Your task to perform on an android device: Open CNN.com Image 0: 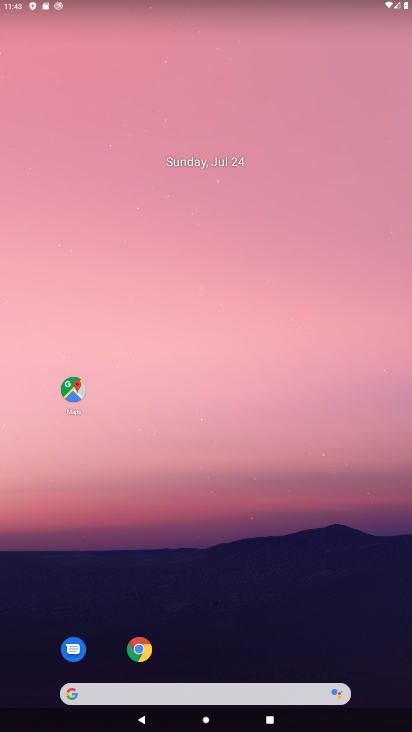
Step 0: drag from (285, 663) to (292, 277)
Your task to perform on an android device: Open CNN.com Image 1: 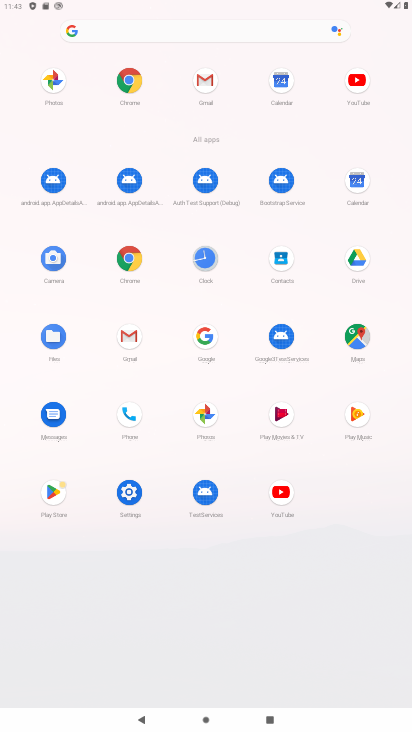
Step 1: click (140, 80)
Your task to perform on an android device: Open CNN.com Image 2: 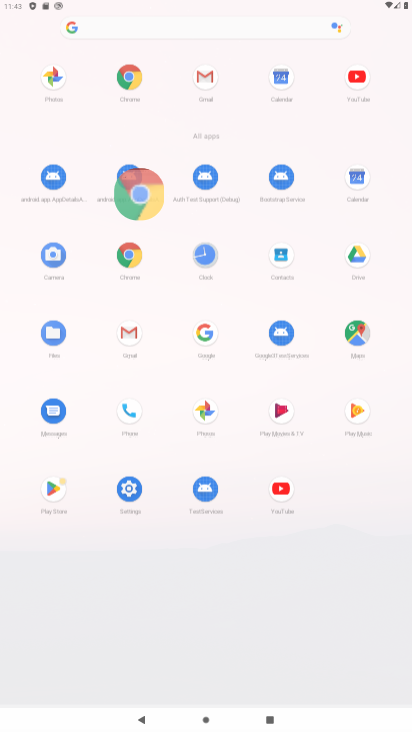
Step 2: click (127, 90)
Your task to perform on an android device: Open CNN.com Image 3: 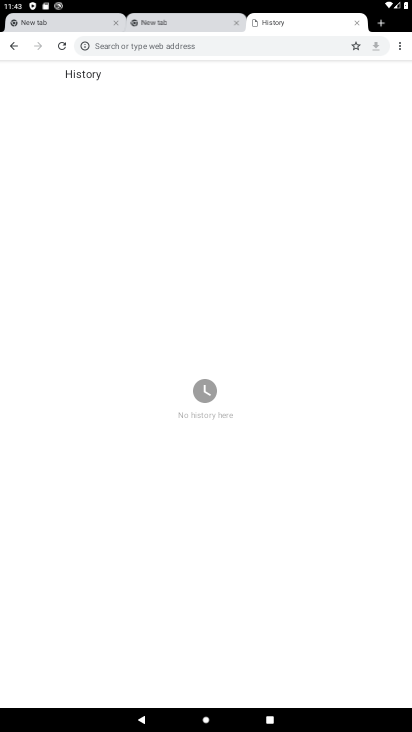
Step 3: click (222, 384)
Your task to perform on an android device: Open CNN.com Image 4: 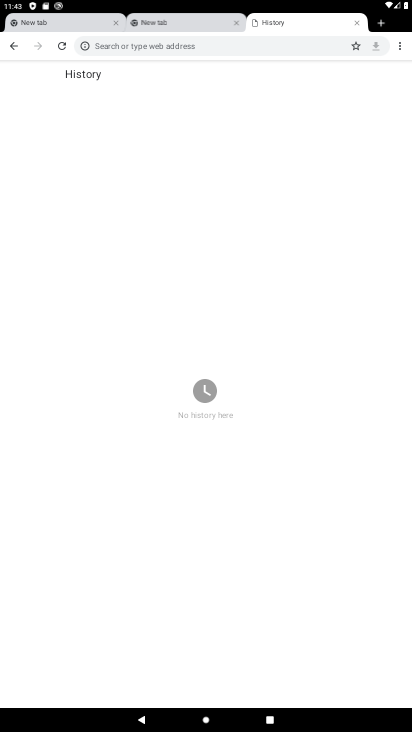
Step 4: press back button
Your task to perform on an android device: Open CNN.com Image 5: 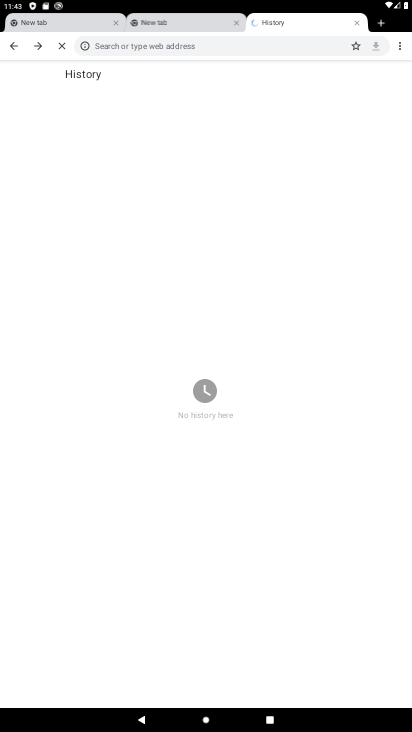
Step 5: press back button
Your task to perform on an android device: Open CNN.com Image 6: 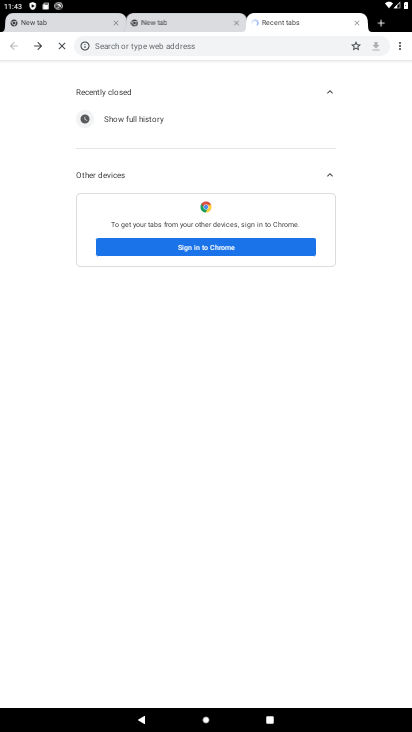
Step 6: press back button
Your task to perform on an android device: Open CNN.com Image 7: 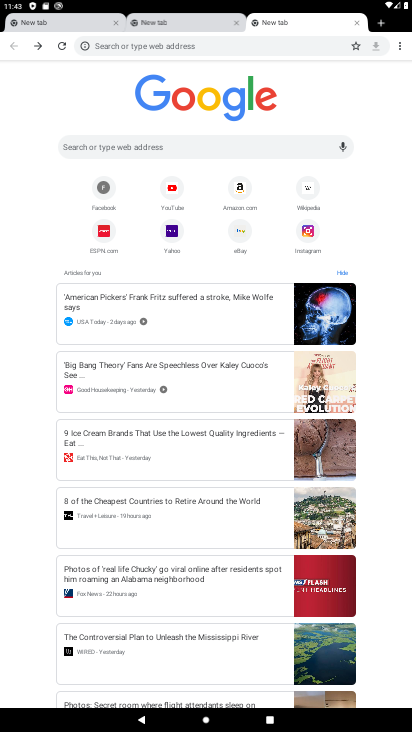
Step 7: click (332, 95)
Your task to perform on an android device: Open CNN.com Image 8: 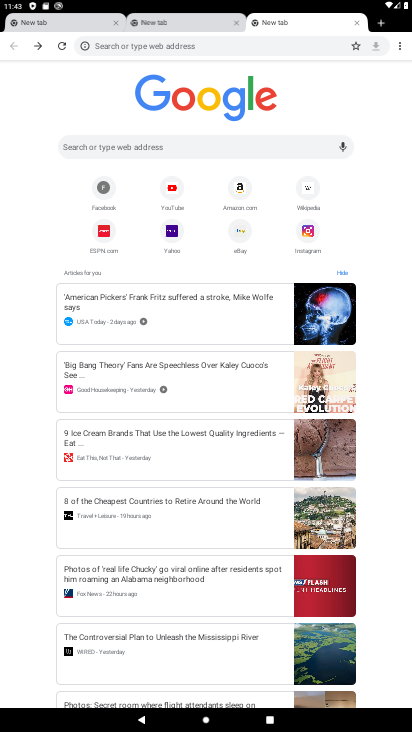
Step 8: click (108, 155)
Your task to perform on an android device: Open CNN.com Image 9: 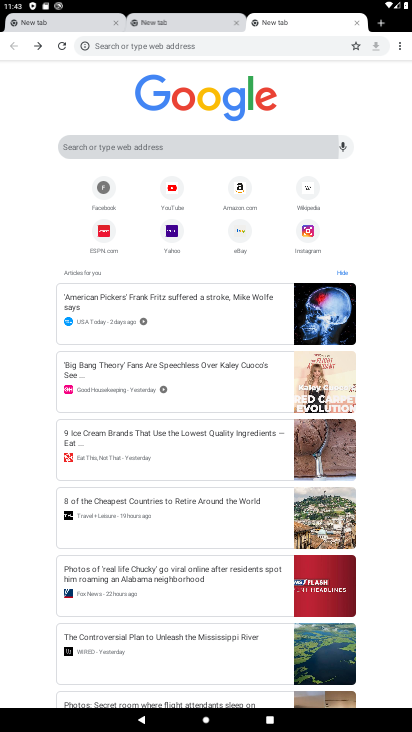
Step 9: click (90, 153)
Your task to perform on an android device: Open CNN.com Image 10: 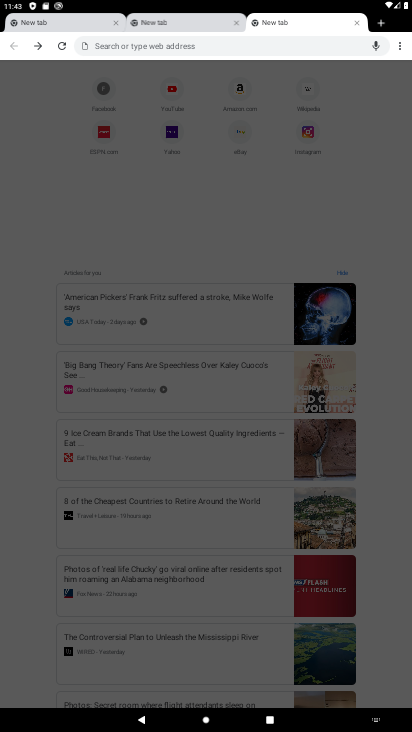
Step 10: click (86, 154)
Your task to perform on an android device: Open CNN.com Image 11: 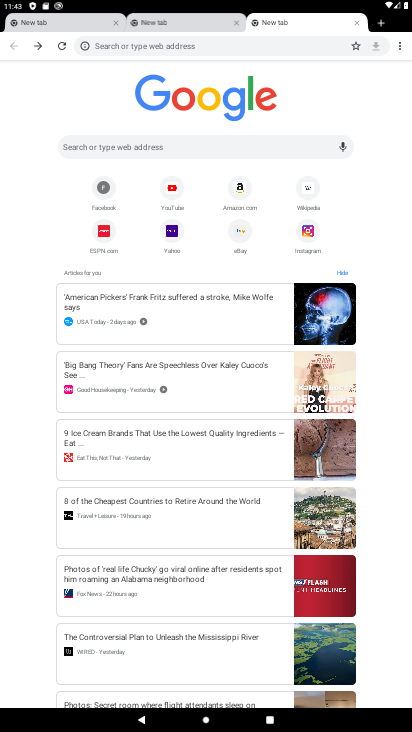
Step 11: click (124, 38)
Your task to perform on an android device: Open CNN.com Image 12: 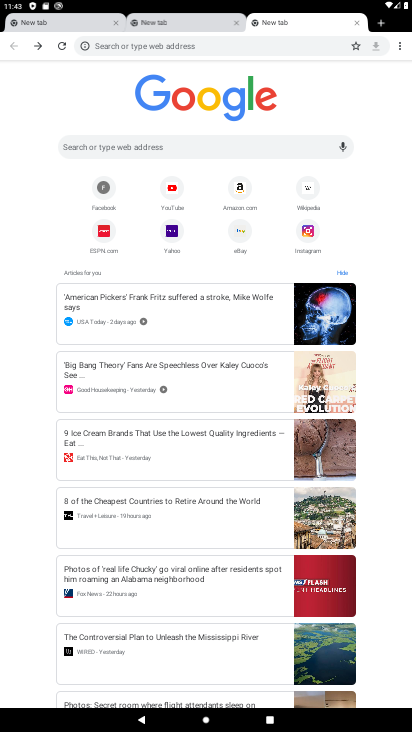
Step 12: click (124, 43)
Your task to perform on an android device: Open CNN.com Image 13: 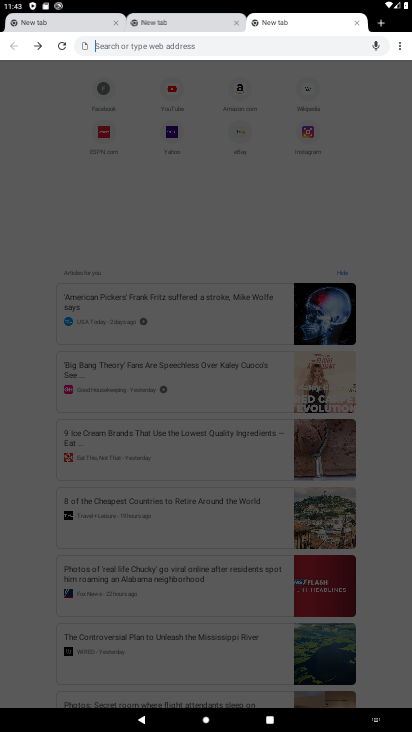
Step 13: click (121, 52)
Your task to perform on an android device: Open CNN.com Image 14: 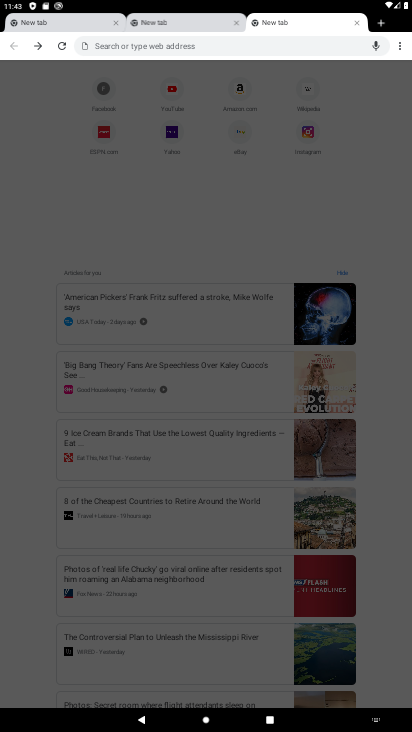
Step 14: click (124, 54)
Your task to perform on an android device: Open CNN.com Image 15: 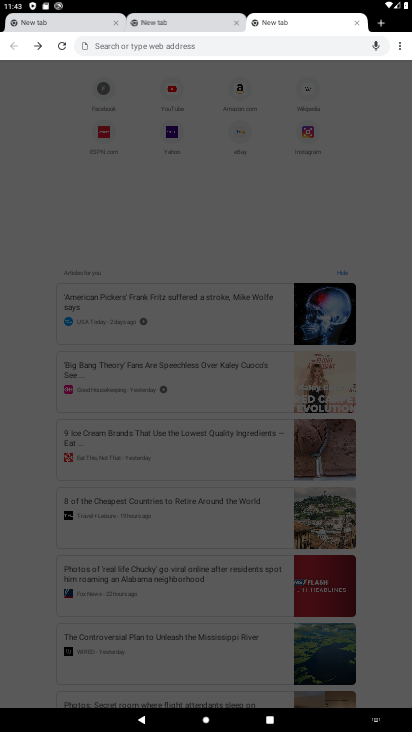
Step 15: type "CNN.com"
Your task to perform on an android device: Open CNN.com Image 16: 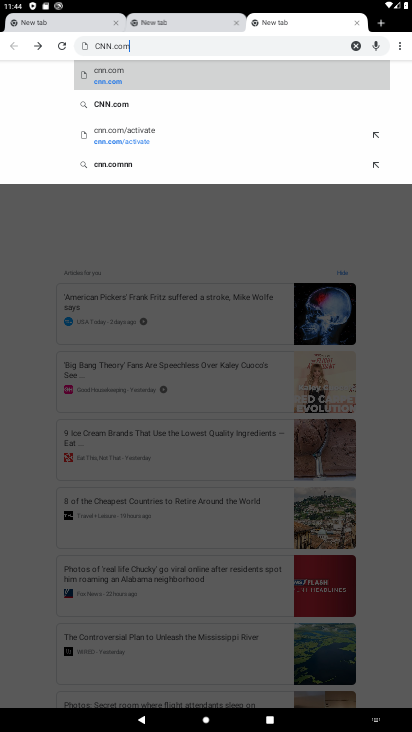
Step 16: task complete